Your task to perform on an android device: move an email to a new category in the gmail app Image 0: 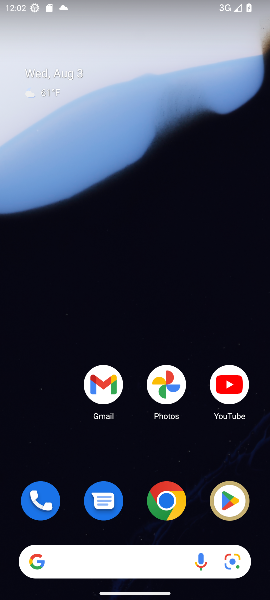
Step 0: drag from (143, 435) to (124, 28)
Your task to perform on an android device: move an email to a new category in the gmail app Image 1: 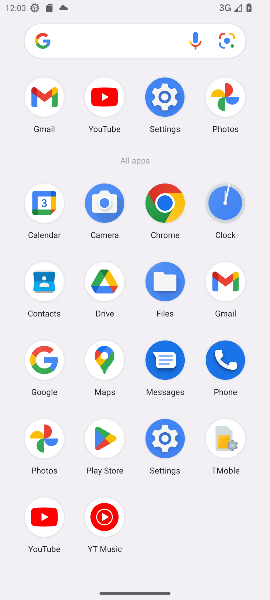
Step 1: click (227, 291)
Your task to perform on an android device: move an email to a new category in the gmail app Image 2: 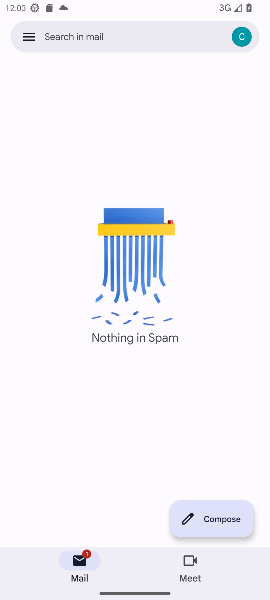
Step 2: click (29, 38)
Your task to perform on an android device: move an email to a new category in the gmail app Image 3: 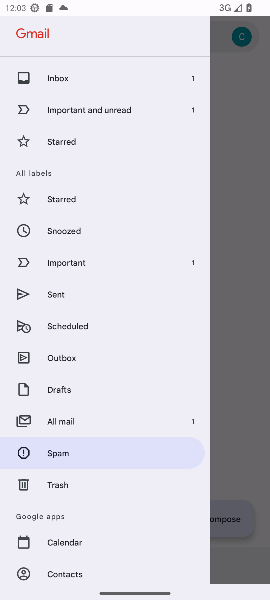
Step 3: click (69, 423)
Your task to perform on an android device: move an email to a new category in the gmail app Image 4: 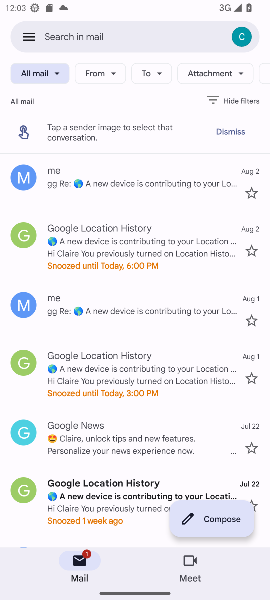
Step 4: click (169, 186)
Your task to perform on an android device: move an email to a new category in the gmail app Image 5: 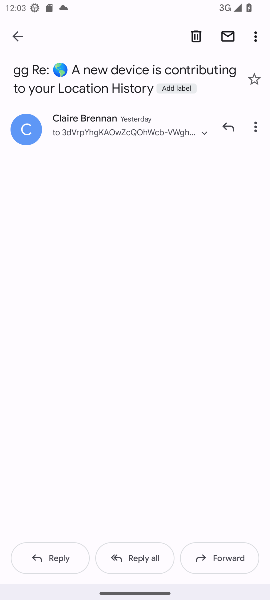
Step 5: click (258, 29)
Your task to perform on an android device: move an email to a new category in the gmail app Image 6: 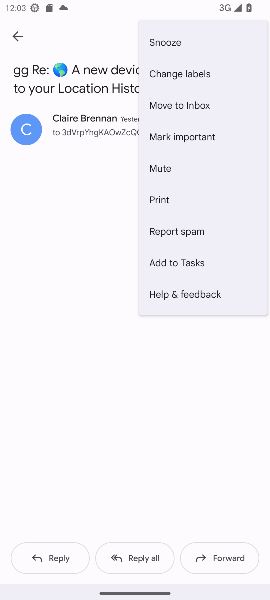
Step 6: click (172, 133)
Your task to perform on an android device: move an email to a new category in the gmail app Image 7: 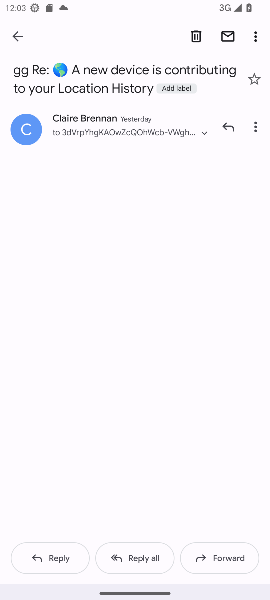
Step 7: task complete